Your task to perform on an android device: toggle airplane mode Image 0: 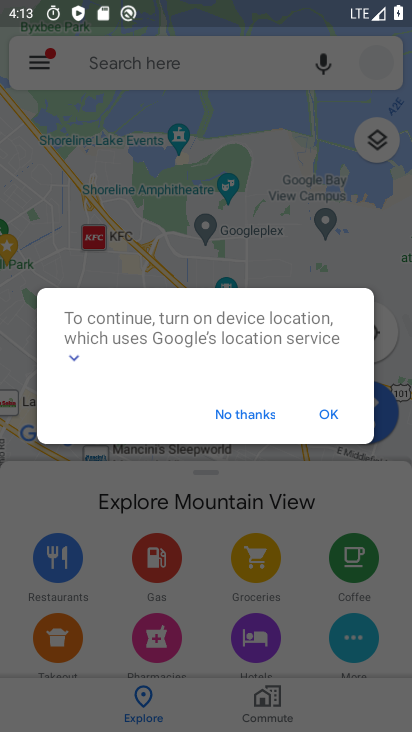
Step 0: press home button
Your task to perform on an android device: toggle airplane mode Image 1: 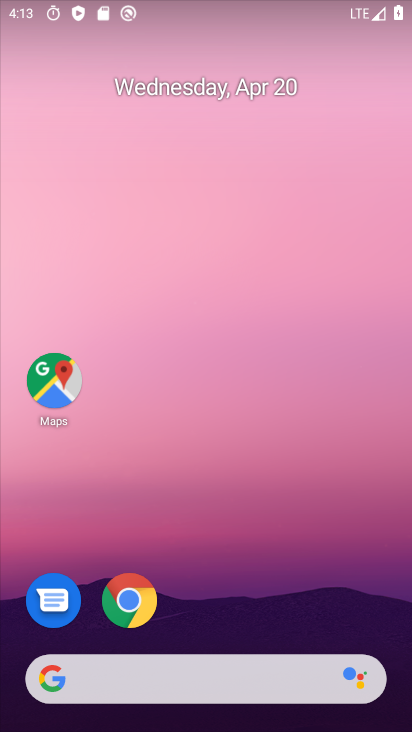
Step 1: drag from (229, 3) to (274, 430)
Your task to perform on an android device: toggle airplane mode Image 2: 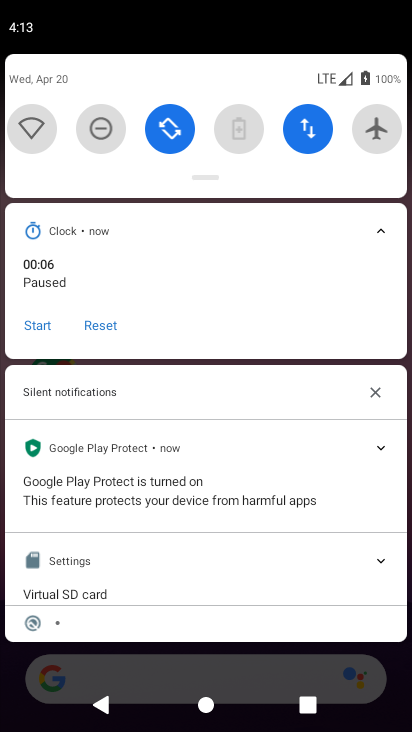
Step 2: click (375, 128)
Your task to perform on an android device: toggle airplane mode Image 3: 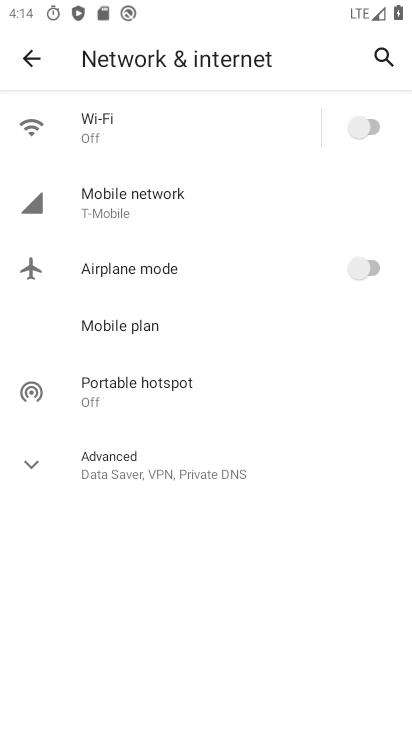
Step 3: click (354, 256)
Your task to perform on an android device: toggle airplane mode Image 4: 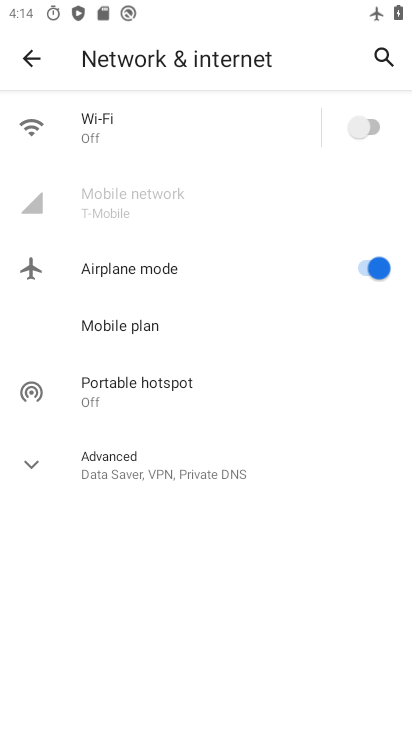
Step 4: task complete